Your task to perform on an android device: Open ESPN.com Image 0: 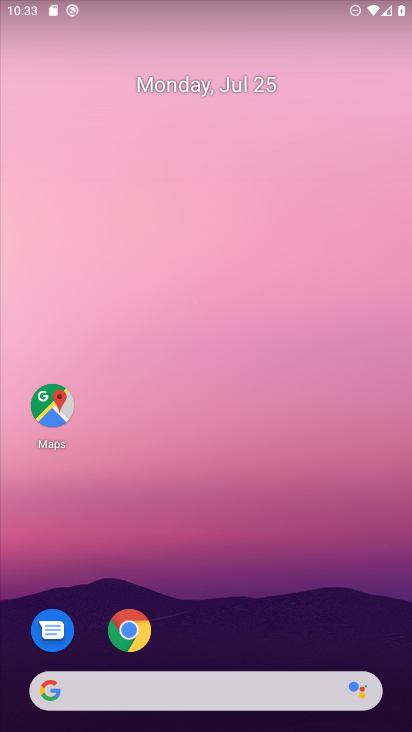
Step 0: drag from (280, 550) to (279, 0)
Your task to perform on an android device: Open ESPN.com Image 1: 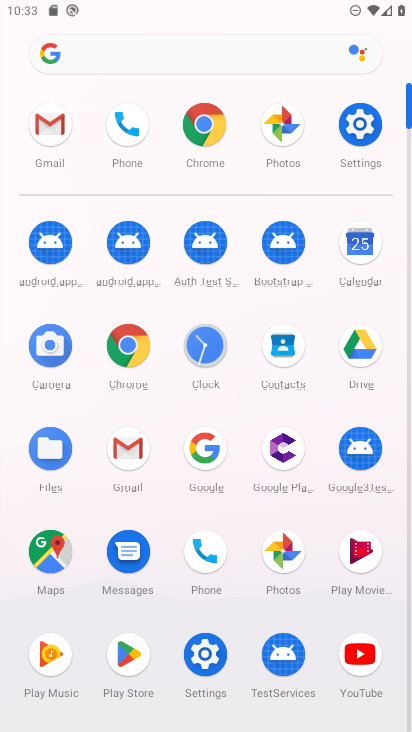
Step 1: click (209, 127)
Your task to perform on an android device: Open ESPN.com Image 2: 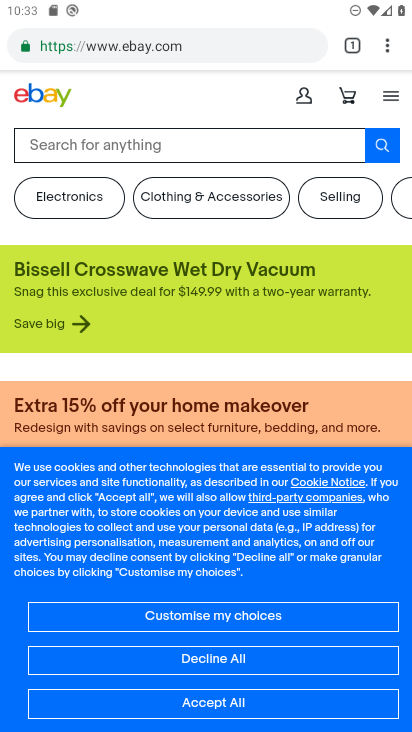
Step 2: click (259, 52)
Your task to perform on an android device: Open ESPN.com Image 3: 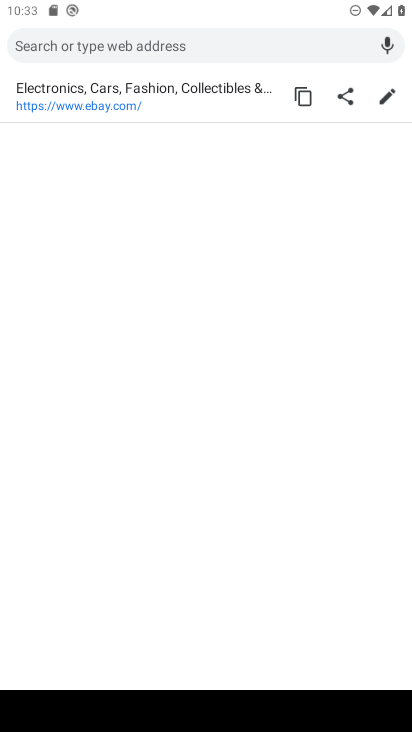
Step 3: type "espn.com"
Your task to perform on an android device: Open ESPN.com Image 4: 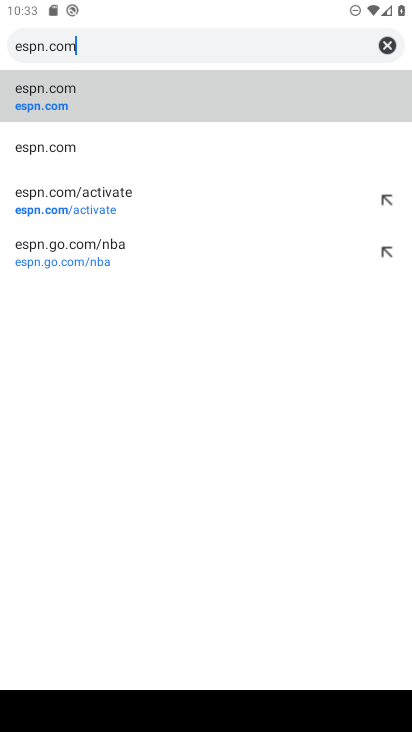
Step 4: click (24, 108)
Your task to perform on an android device: Open ESPN.com Image 5: 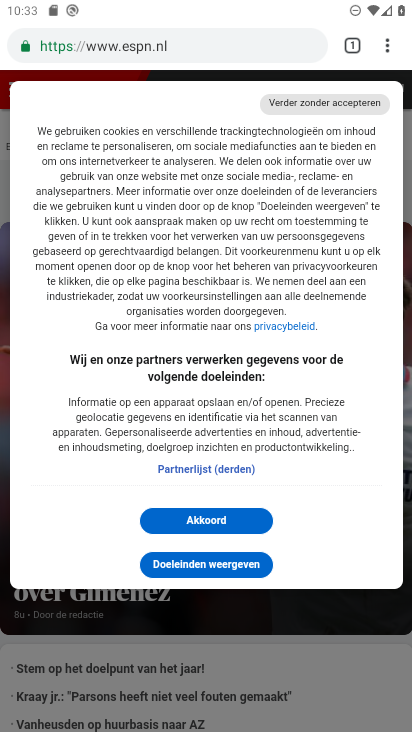
Step 5: task complete